Your task to perform on an android device: Go to Google maps Image 0: 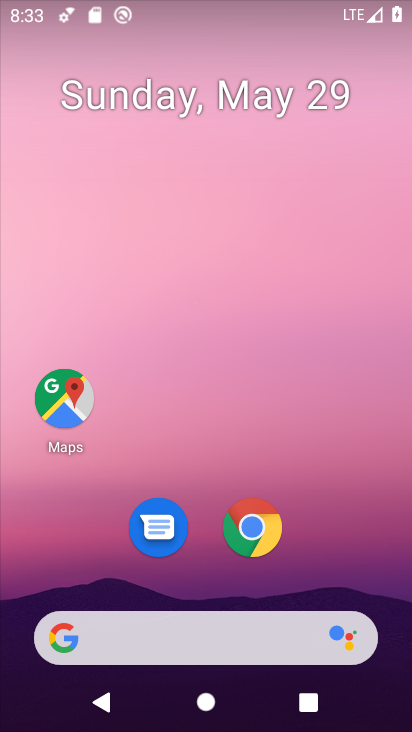
Step 0: click (65, 393)
Your task to perform on an android device: Go to Google maps Image 1: 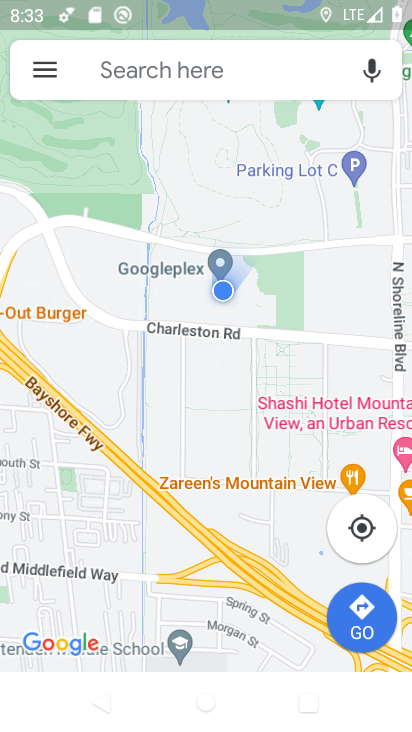
Step 1: click (47, 67)
Your task to perform on an android device: Go to Google maps Image 2: 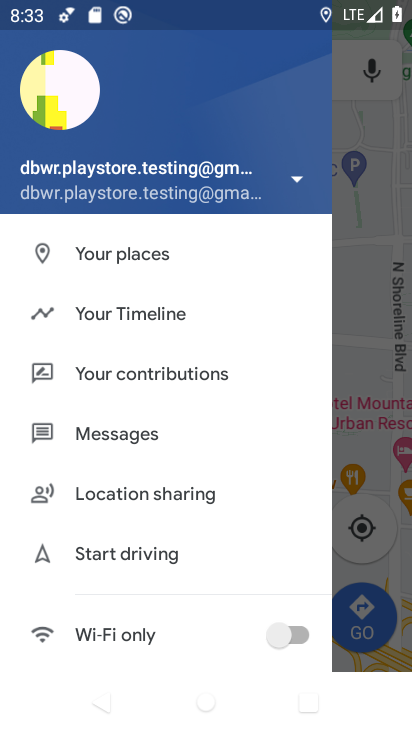
Step 2: task complete